Your task to perform on an android device: clear history in the chrome app Image 0: 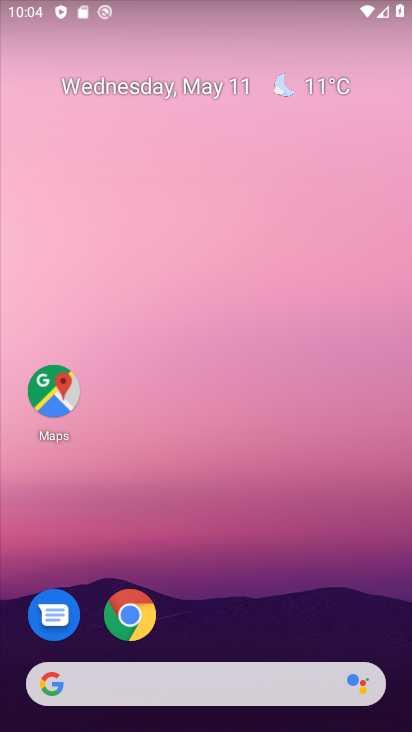
Step 0: click (129, 620)
Your task to perform on an android device: clear history in the chrome app Image 1: 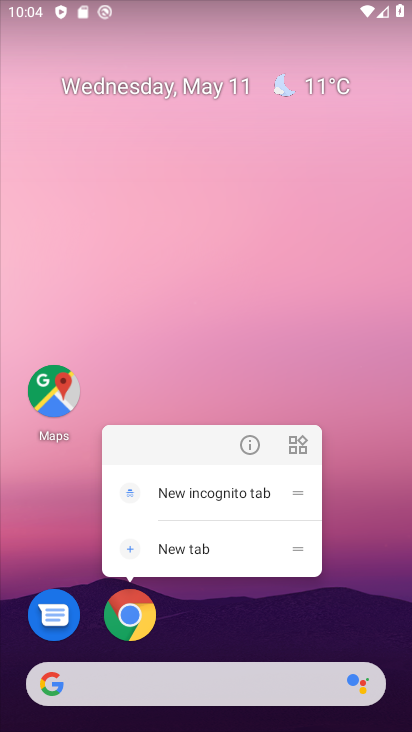
Step 1: click (131, 618)
Your task to perform on an android device: clear history in the chrome app Image 2: 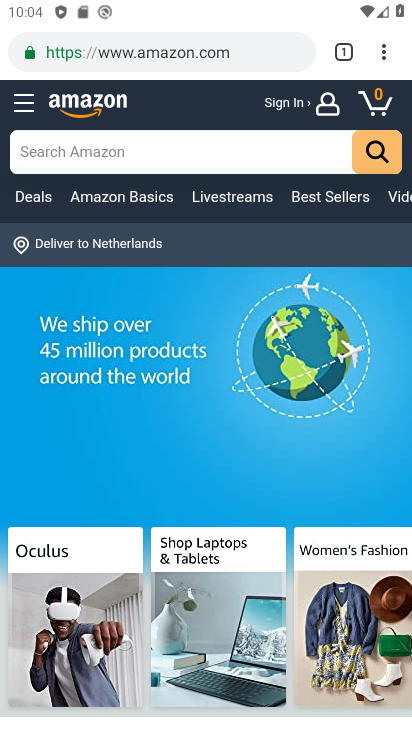
Step 2: click (386, 54)
Your task to perform on an android device: clear history in the chrome app Image 3: 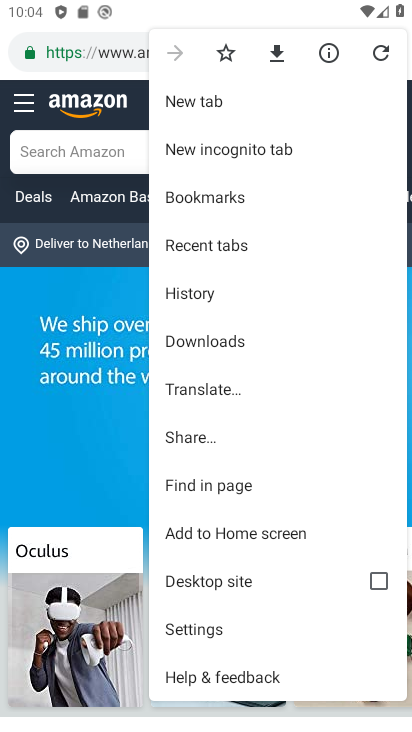
Step 3: click (210, 301)
Your task to perform on an android device: clear history in the chrome app Image 4: 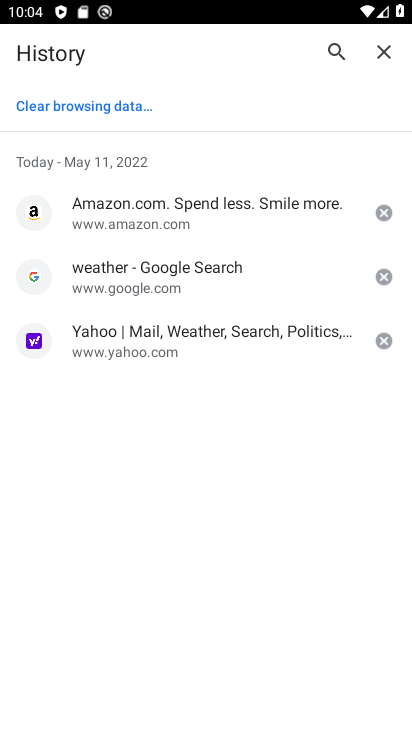
Step 4: click (109, 103)
Your task to perform on an android device: clear history in the chrome app Image 5: 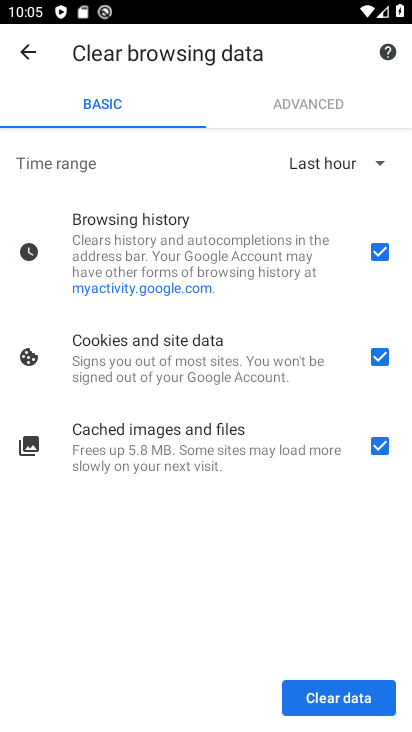
Step 5: click (341, 166)
Your task to perform on an android device: clear history in the chrome app Image 6: 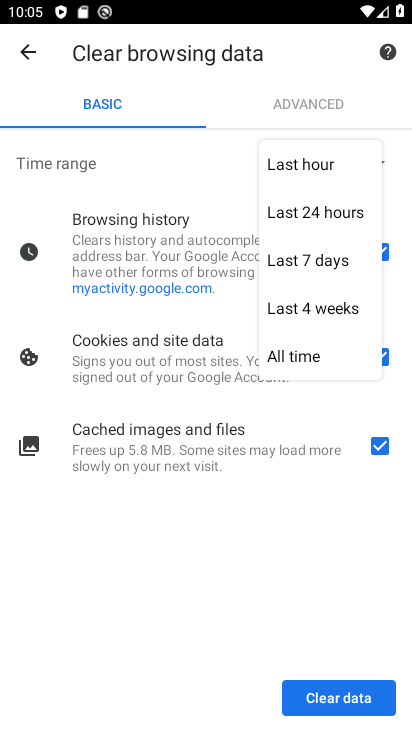
Step 6: click (306, 360)
Your task to perform on an android device: clear history in the chrome app Image 7: 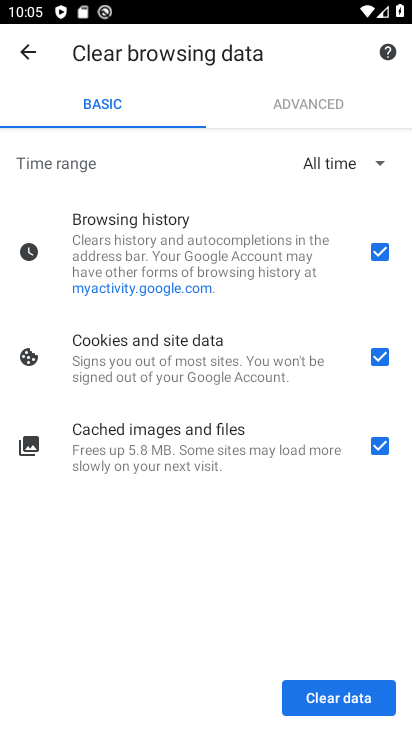
Step 7: click (335, 700)
Your task to perform on an android device: clear history in the chrome app Image 8: 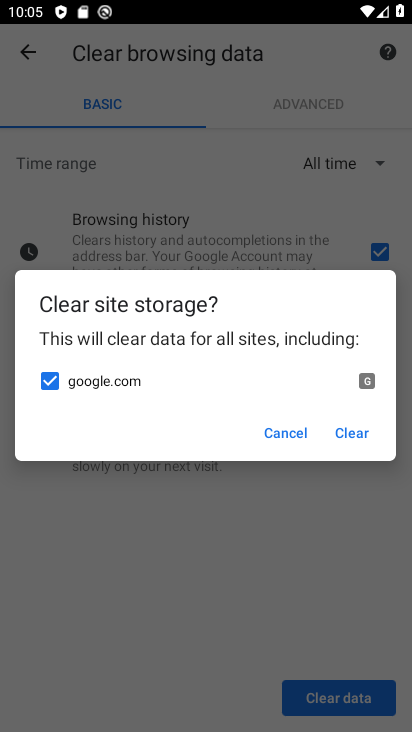
Step 8: click (345, 429)
Your task to perform on an android device: clear history in the chrome app Image 9: 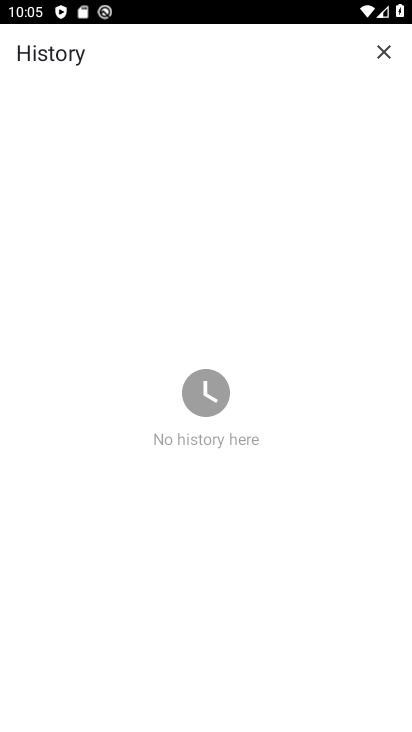
Step 9: task complete